Your task to perform on an android device: turn off javascript in the chrome app Image 0: 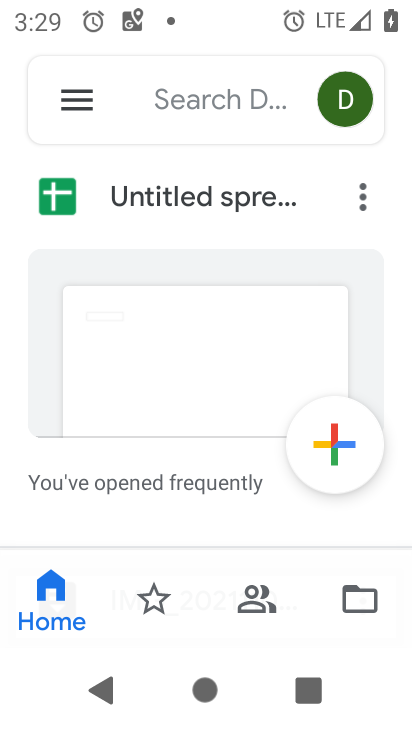
Step 0: press home button
Your task to perform on an android device: turn off javascript in the chrome app Image 1: 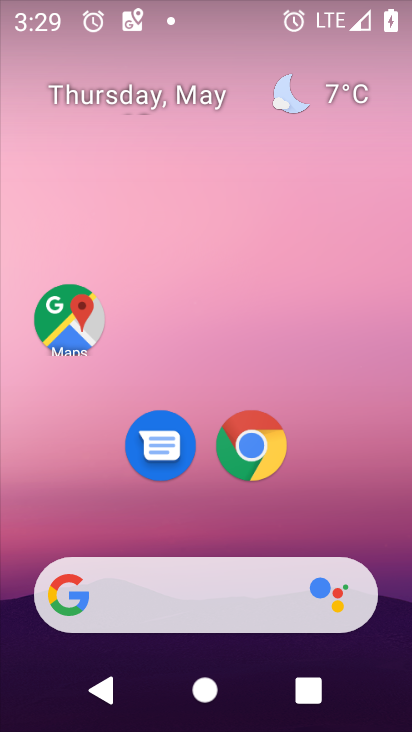
Step 1: click (257, 447)
Your task to perform on an android device: turn off javascript in the chrome app Image 2: 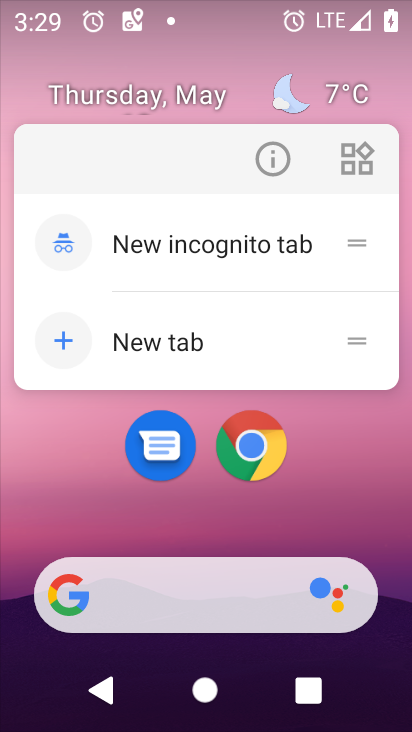
Step 2: click (246, 451)
Your task to perform on an android device: turn off javascript in the chrome app Image 3: 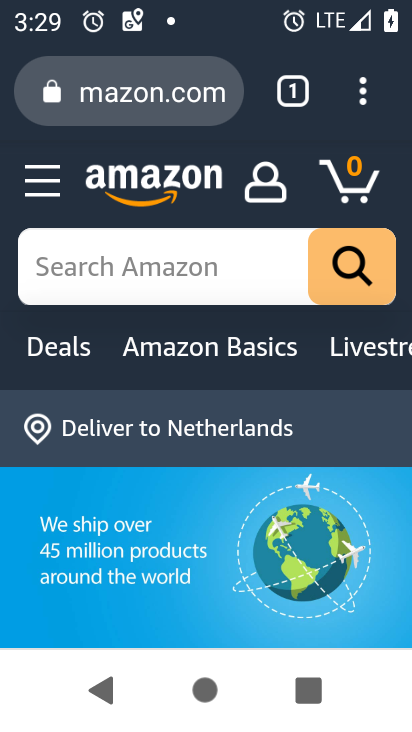
Step 3: click (364, 100)
Your task to perform on an android device: turn off javascript in the chrome app Image 4: 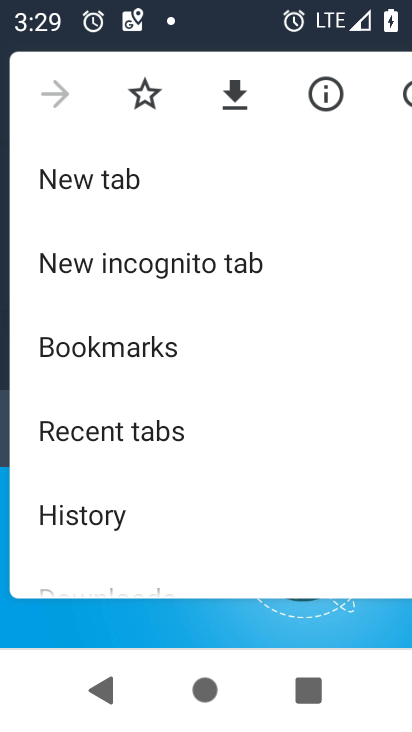
Step 4: drag from (296, 469) to (307, 176)
Your task to perform on an android device: turn off javascript in the chrome app Image 5: 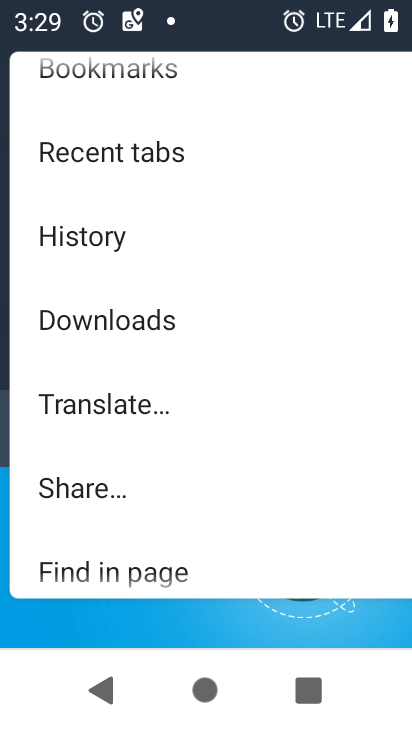
Step 5: drag from (336, 478) to (320, 173)
Your task to perform on an android device: turn off javascript in the chrome app Image 6: 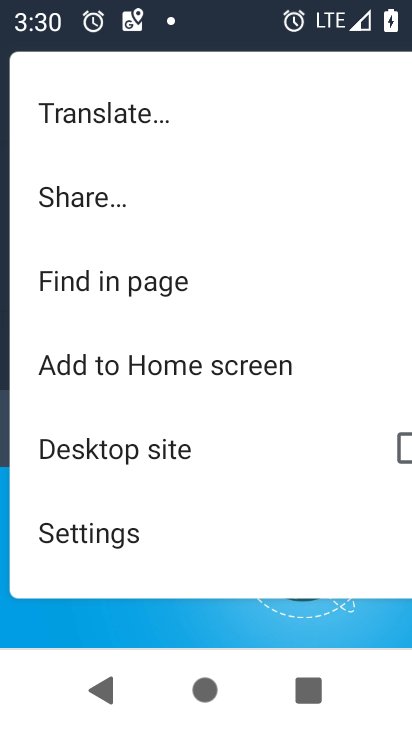
Step 6: click (129, 540)
Your task to perform on an android device: turn off javascript in the chrome app Image 7: 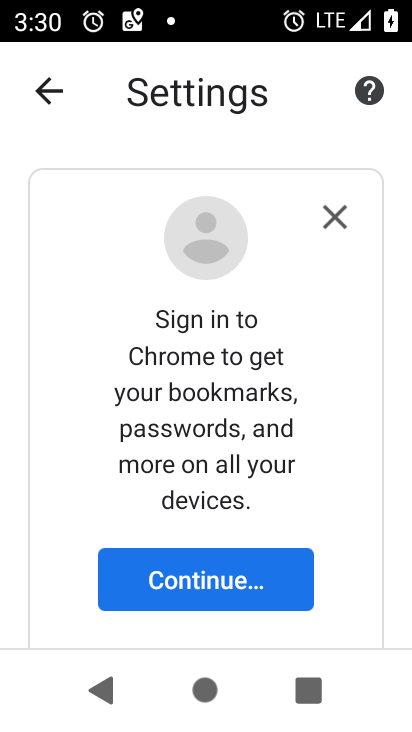
Step 7: drag from (327, 512) to (319, 24)
Your task to perform on an android device: turn off javascript in the chrome app Image 8: 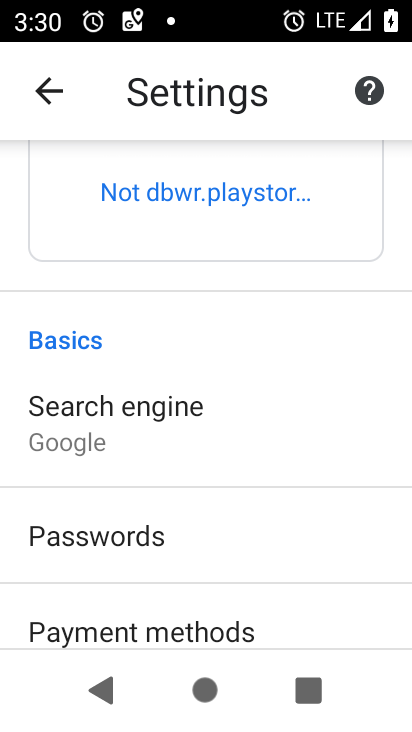
Step 8: drag from (298, 504) to (287, 150)
Your task to perform on an android device: turn off javascript in the chrome app Image 9: 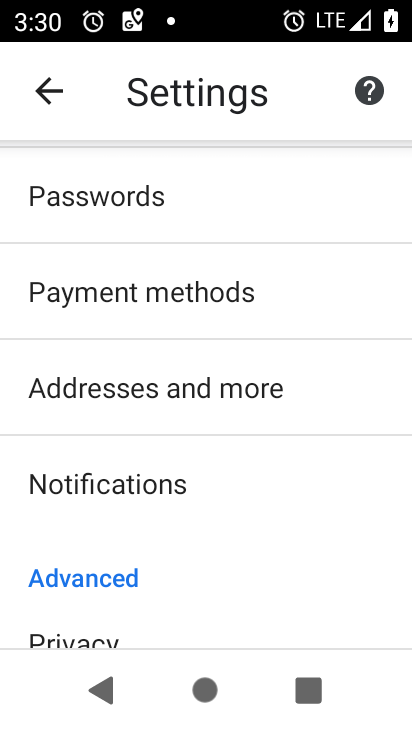
Step 9: drag from (209, 503) to (204, 186)
Your task to perform on an android device: turn off javascript in the chrome app Image 10: 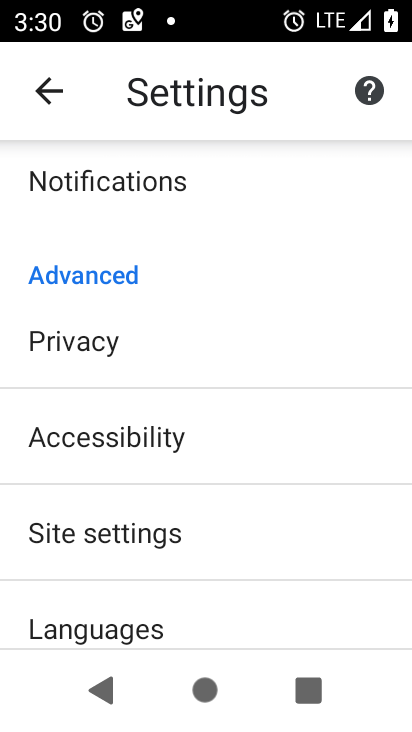
Step 10: click (170, 536)
Your task to perform on an android device: turn off javascript in the chrome app Image 11: 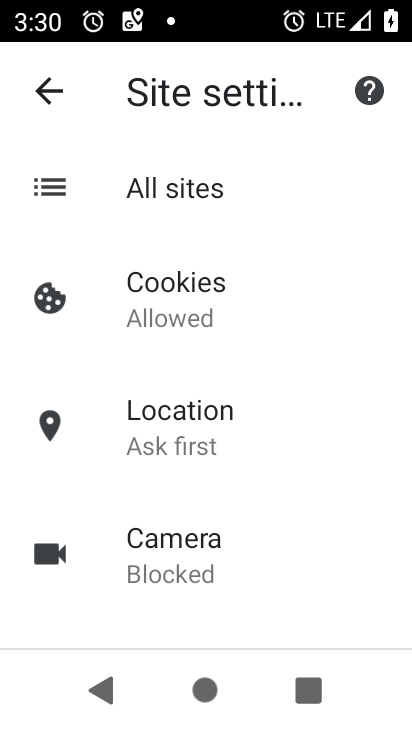
Step 11: drag from (250, 542) to (246, 231)
Your task to perform on an android device: turn off javascript in the chrome app Image 12: 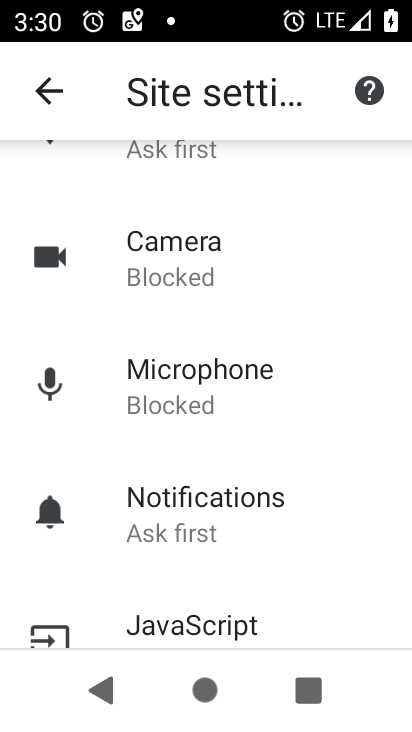
Step 12: click (214, 626)
Your task to perform on an android device: turn off javascript in the chrome app Image 13: 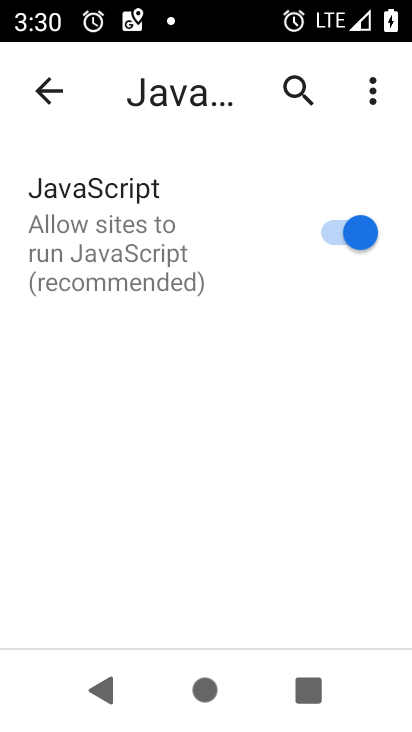
Step 13: click (345, 247)
Your task to perform on an android device: turn off javascript in the chrome app Image 14: 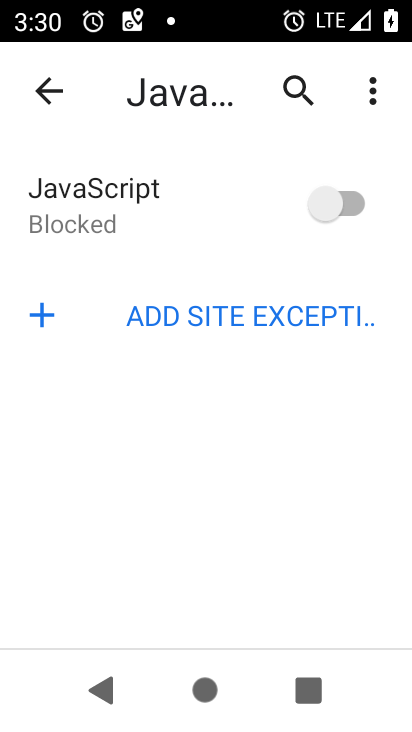
Step 14: task complete